Your task to perform on an android device: Search for sushi restaurants on Maps Image 0: 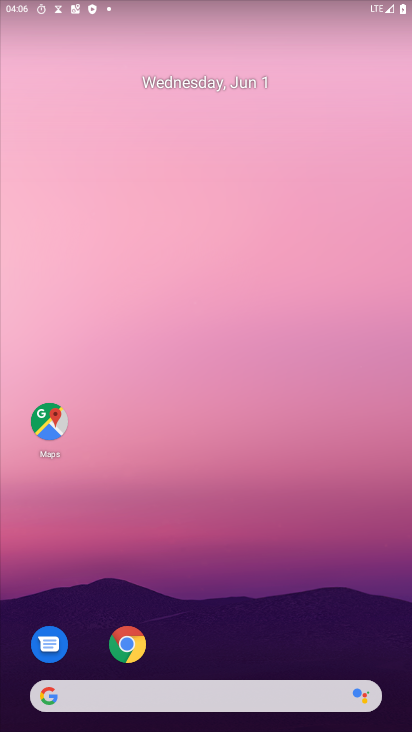
Step 0: click (57, 413)
Your task to perform on an android device: Search for sushi restaurants on Maps Image 1: 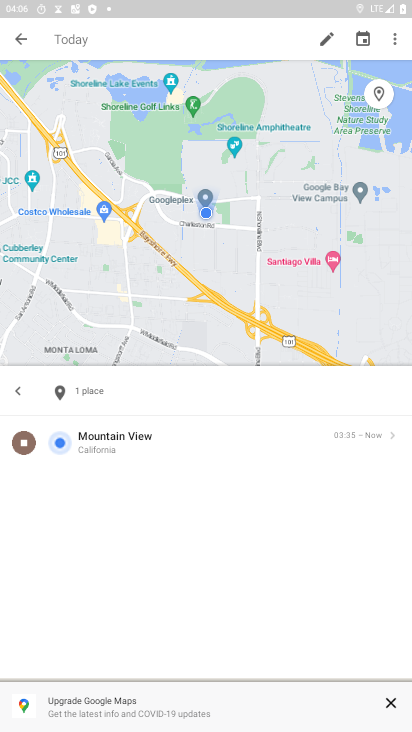
Step 1: click (158, 43)
Your task to perform on an android device: Search for sushi restaurants on Maps Image 2: 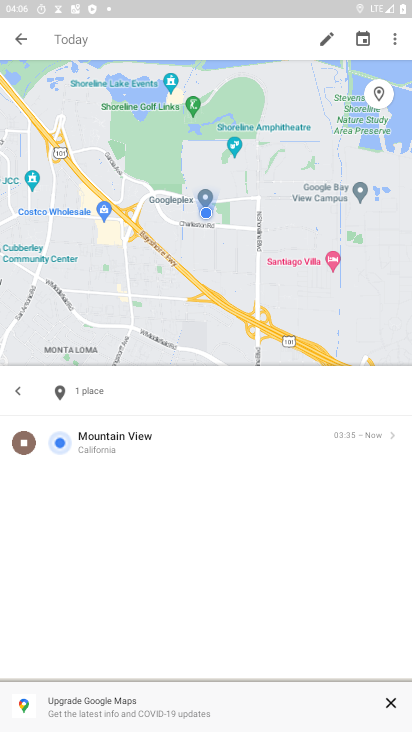
Step 2: click (13, 36)
Your task to perform on an android device: Search for sushi restaurants on Maps Image 3: 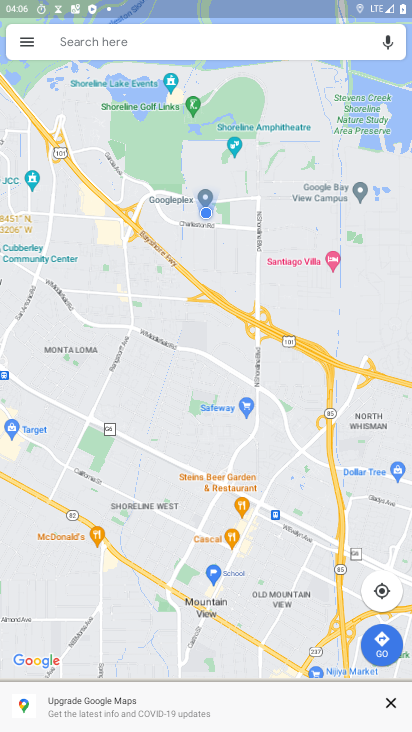
Step 3: click (156, 37)
Your task to perform on an android device: Search for sushi restaurants on Maps Image 4: 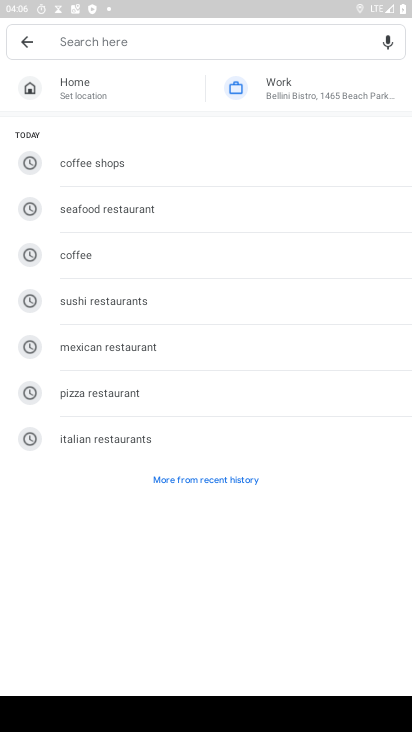
Step 4: click (144, 299)
Your task to perform on an android device: Search for sushi restaurants on Maps Image 5: 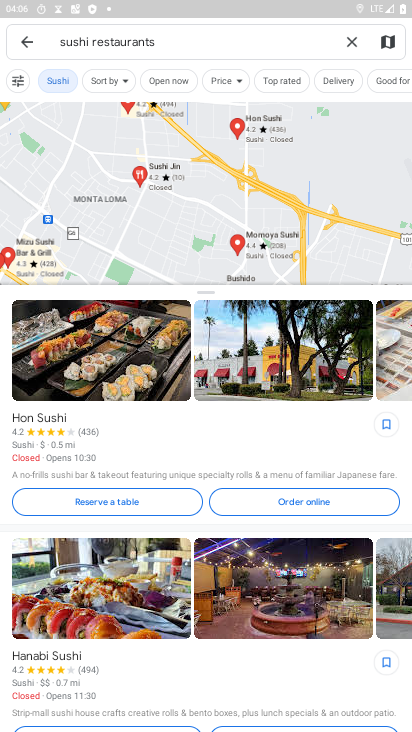
Step 5: task complete